Your task to perform on an android device: see sites visited before in the chrome app Image 0: 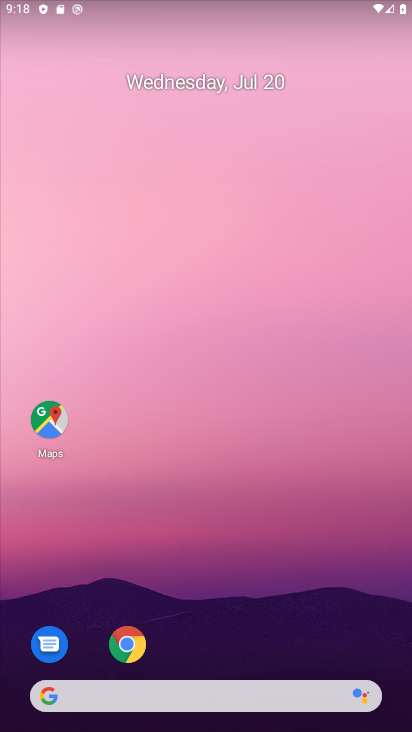
Step 0: click (129, 648)
Your task to perform on an android device: see sites visited before in the chrome app Image 1: 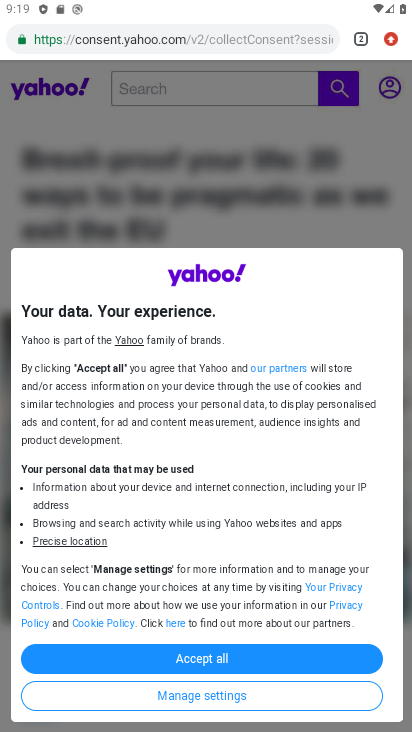
Step 1: click (360, 39)
Your task to perform on an android device: see sites visited before in the chrome app Image 2: 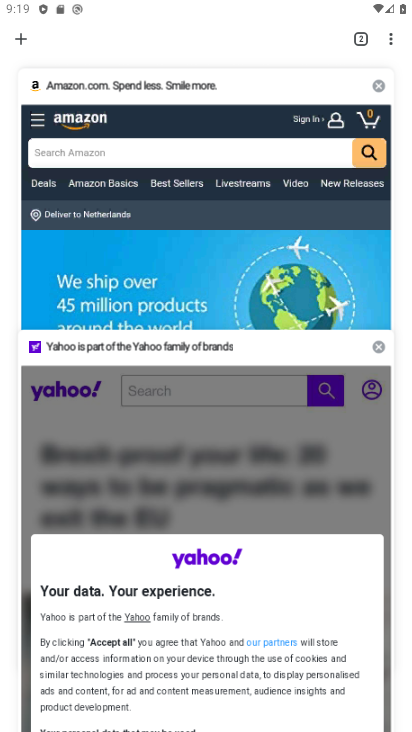
Step 2: click (390, 40)
Your task to perform on an android device: see sites visited before in the chrome app Image 3: 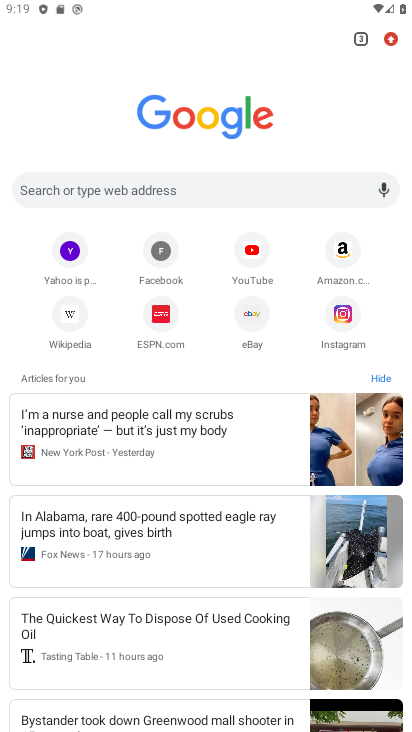
Step 3: click (392, 43)
Your task to perform on an android device: see sites visited before in the chrome app Image 4: 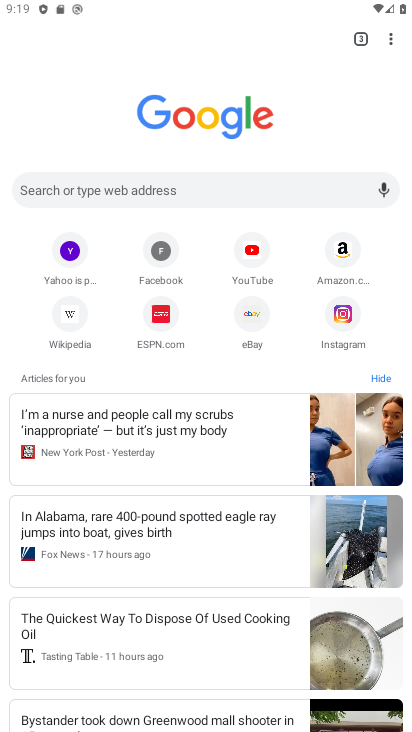
Step 4: click (389, 36)
Your task to perform on an android device: see sites visited before in the chrome app Image 5: 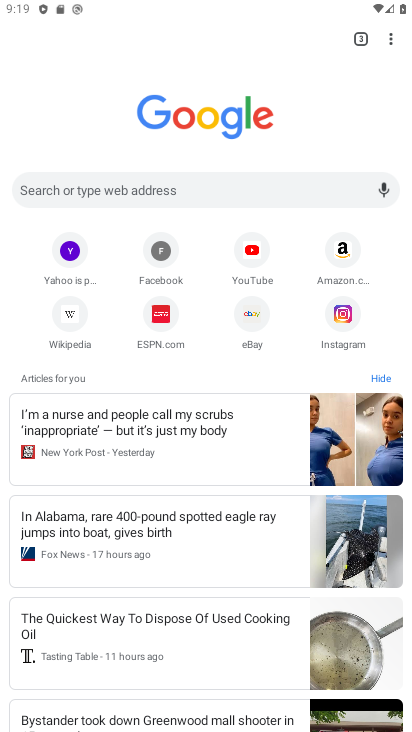
Step 5: click (390, 37)
Your task to perform on an android device: see sites visited before in the chrome app Image 6: 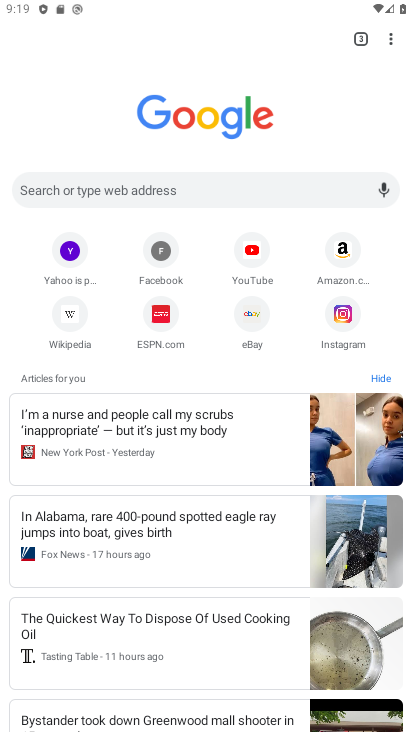
Step 6: click (389, 40)
Your task to perform on an android device: see sites visited before in the chrome app Image 7: 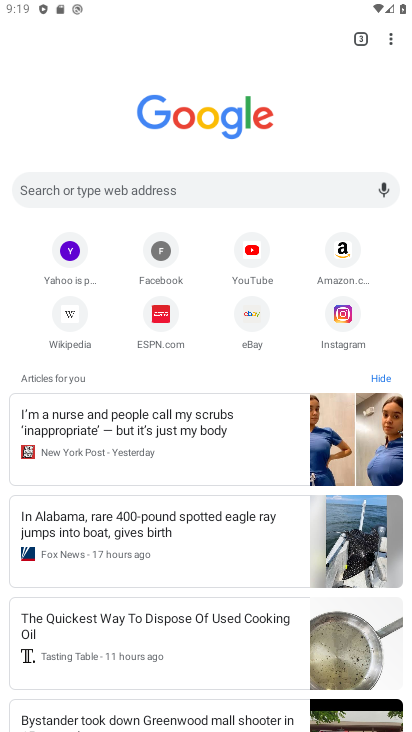
Step 7: click (389, 35)
Your task to perform on an android device: see sites visited before in the chrome app Image 8: 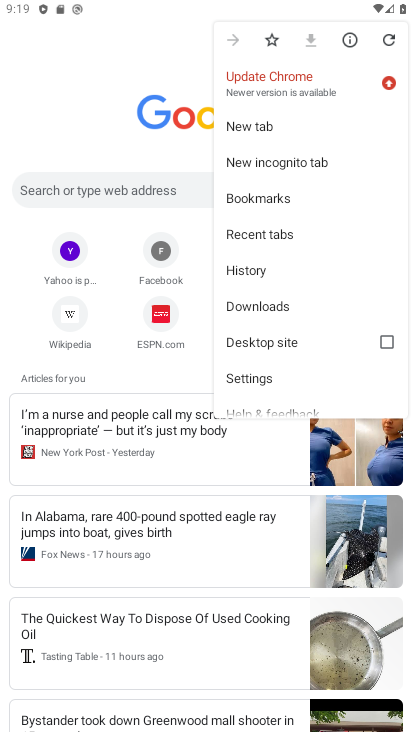
Step 8: click (256, 273)
Your task to perform on an android device: see sites visited before in the chrome app Image 9: 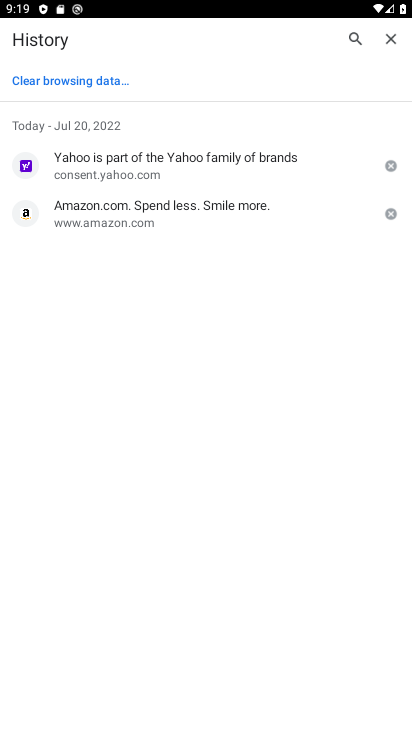
Step 9: task complete